Your task to perform on an android device: Search for vegetarian restaurants on Maps Image 0: 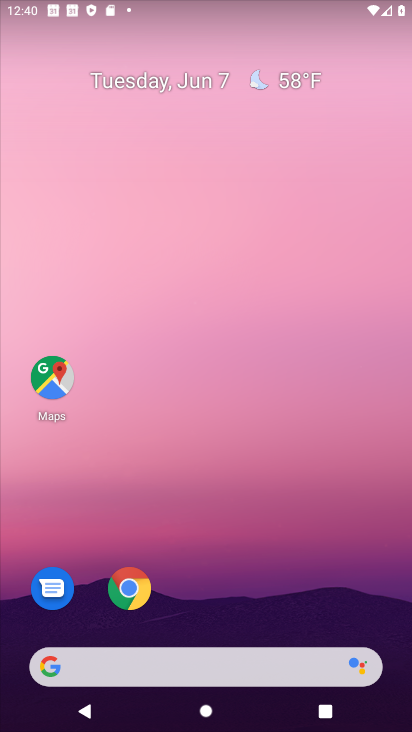
Step 0: click (285, 621)
Your task to perform on an android device: Search for vegetarian restaurants on Maps Image 1: 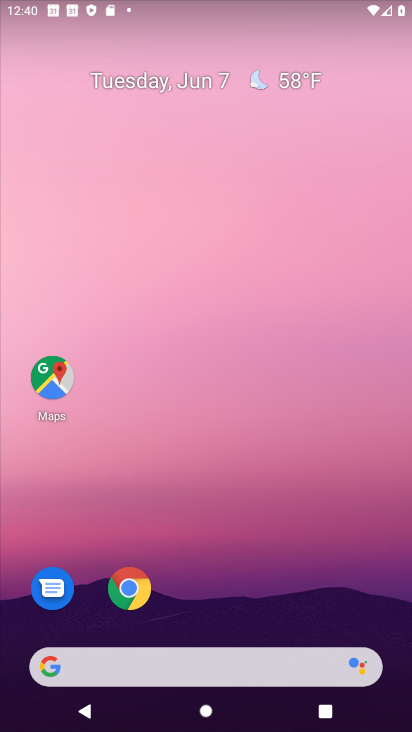
Step 1: click (44, 372)
Your task to perform on an android device: Search for vegetarian restaurants on Maps Image 2: 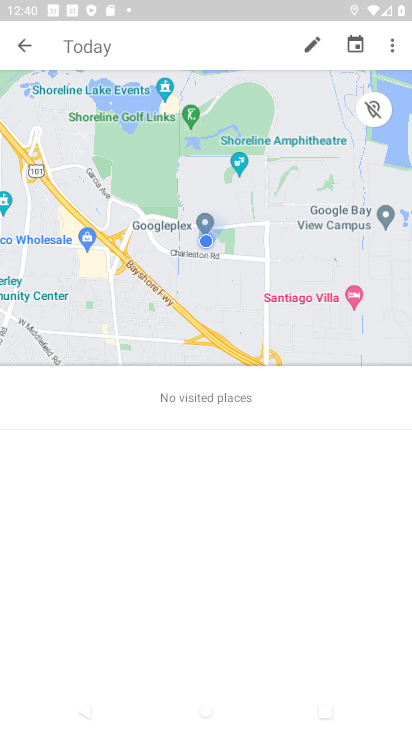
Step 2: task complete